Your task to perform on an android device: Open calendar and show me the fourth week of next month Image 0: 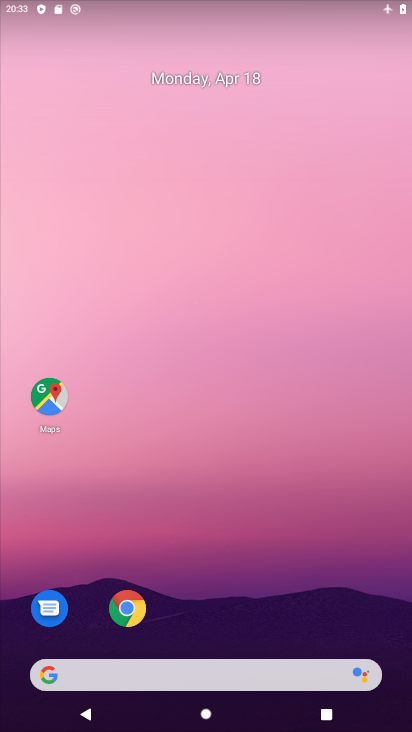
Step 0: click (255, 214)
Your task to perform on an android device: Open calendar and show me the fourth week of next month Image 1: 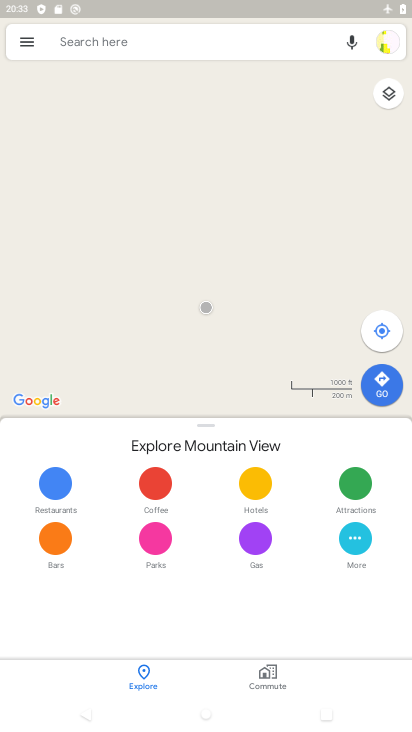
Step 1: press home button
Your task to perform on an android device: Open calendar and show me the fourth week of next month Image 2: 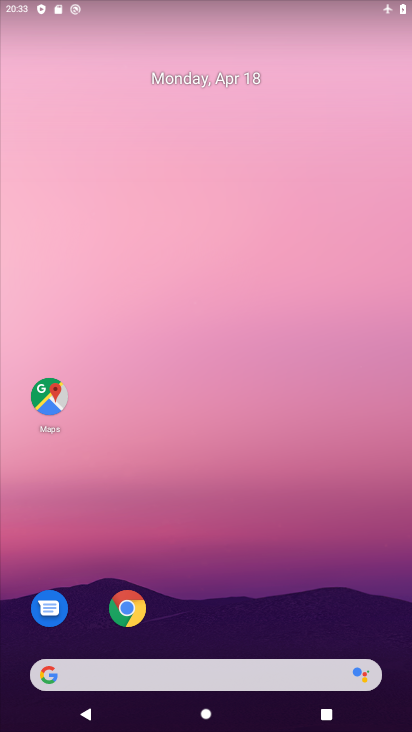
Step 2: drag from (245, 479) to (241, 217)
Your task to perform on an android device: Open calendar and show me the fourth week of next month Image 3: 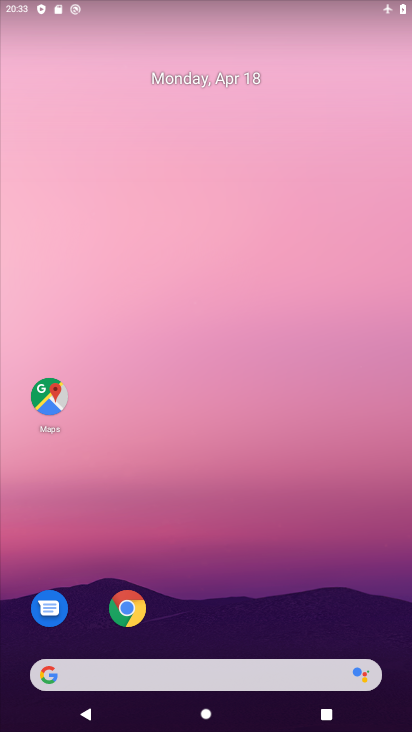
Step 3: drag from (269, 331) to (277, 180)
Your task to perform on an android device: Open calendar and show me the fourth week of next month Image 4: 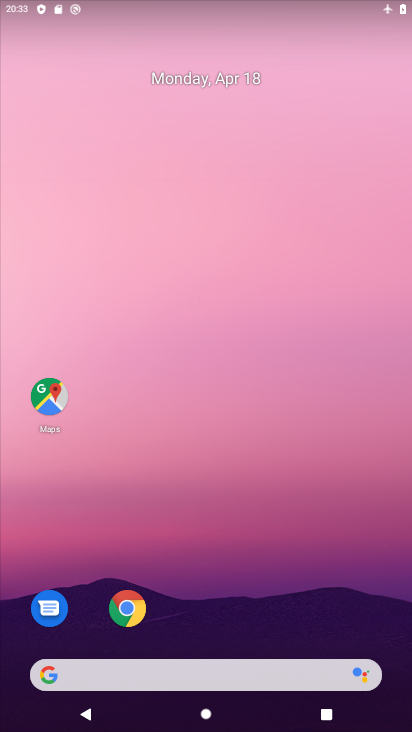
Step 4: drag from (223, 606) to (247, 84)
Your task to perform on an android device: Open calendar and show me the fourth week of next month Image 5: 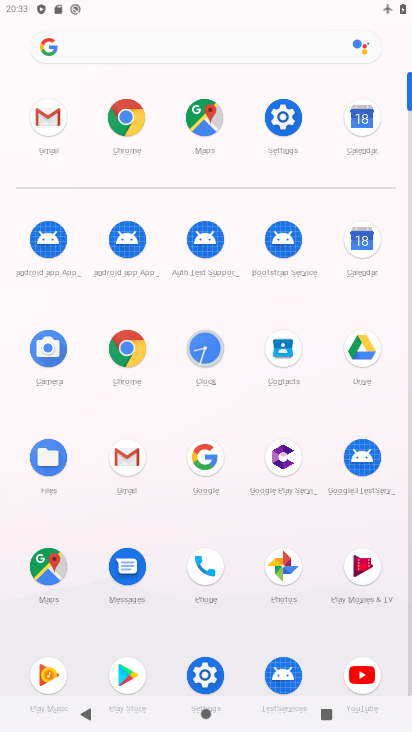
Step 5: click (365, 242)
Your task to perform on an android device: Open calendar and show me the fourth week of next month Image 6: 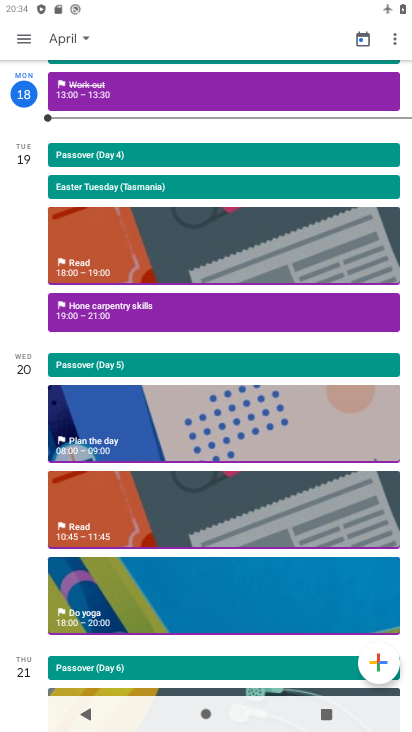
Step 6: click (86, 34)
Your task to perform on an android device: Open calendar and show me the fourth week of next month Image 7: 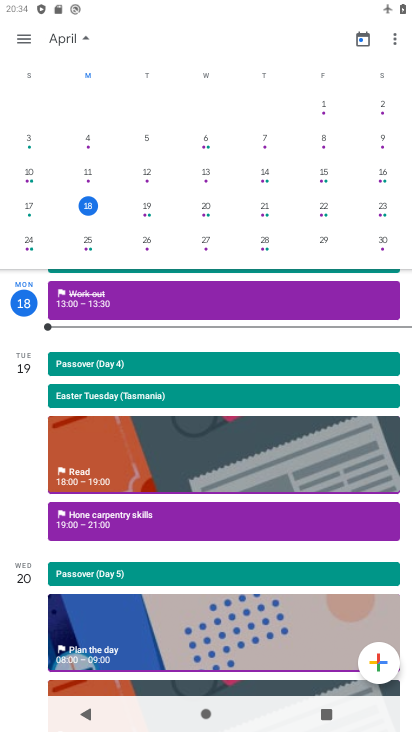
Step 7: drag from (372, 252) to (57, 246)
Your task to perform on an android device: Open calendar and show me the fourth week of next month Image 8: 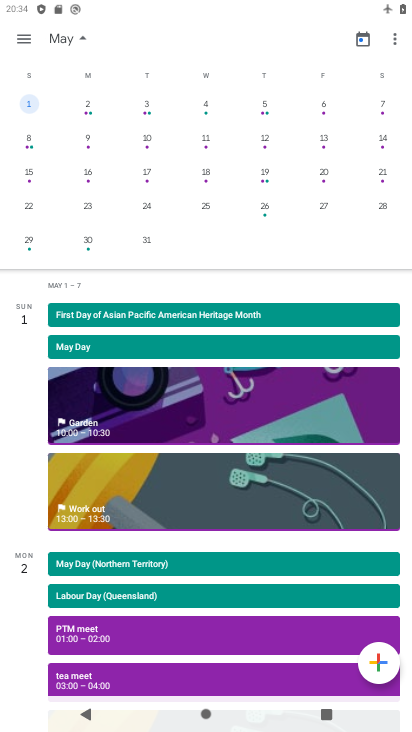
Step 8: click (146, 201)
Your task to perform on an android device: Open calendar and show me the fourth week of next month Image 9: 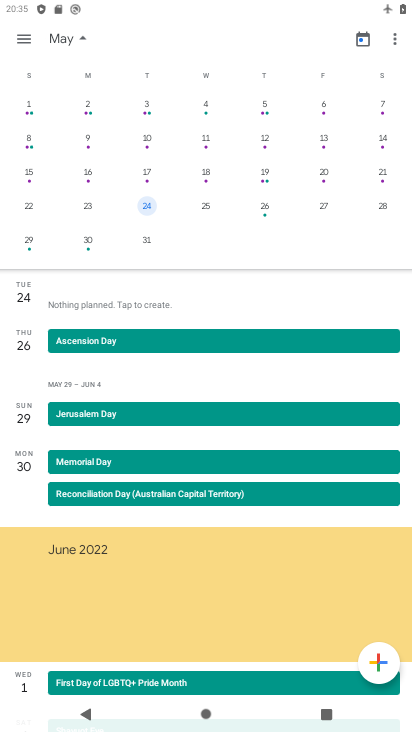
Step 9: task complete